Your task to perform on an android device: toggle javascript in the chrome app Image 0: 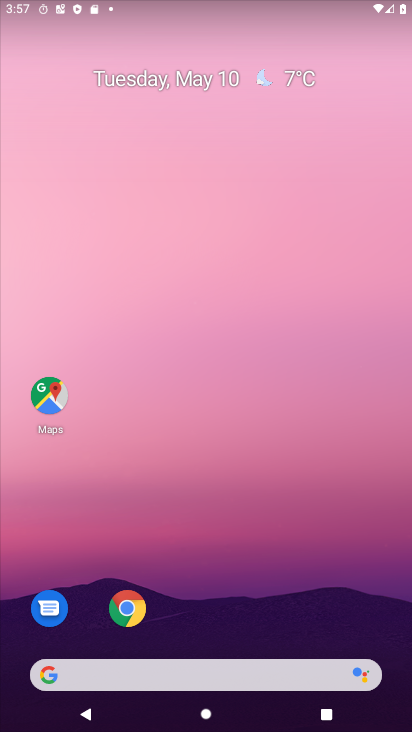
Step 0: click (133, 612)
Your task to perform on an android device: toggle javascript in the chrome app Image 1: 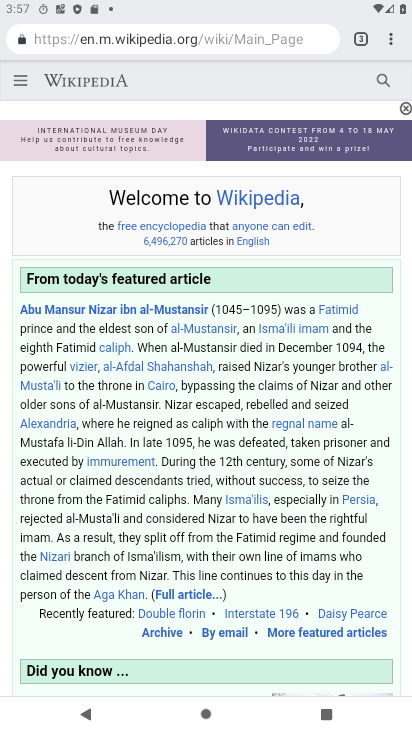
Step 1: drag from (390, 33) to (251, 466)
Your task to perform on an android device: toggle javascript in the chrome app Image 2: 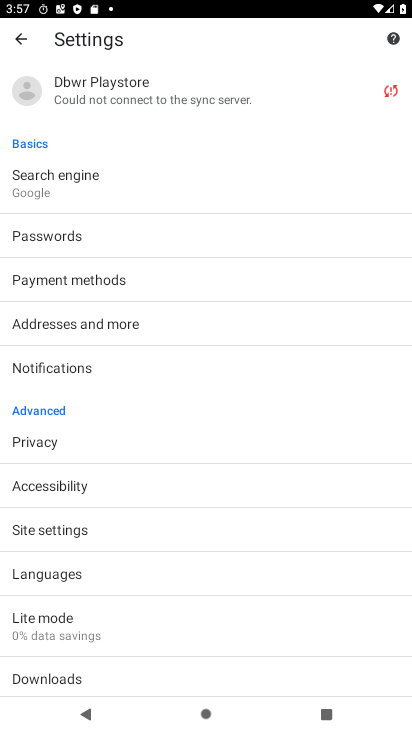
Step 2: click (55, 533)
Your task to perform on an android device: toggle javascript in the chrome app Image 3: 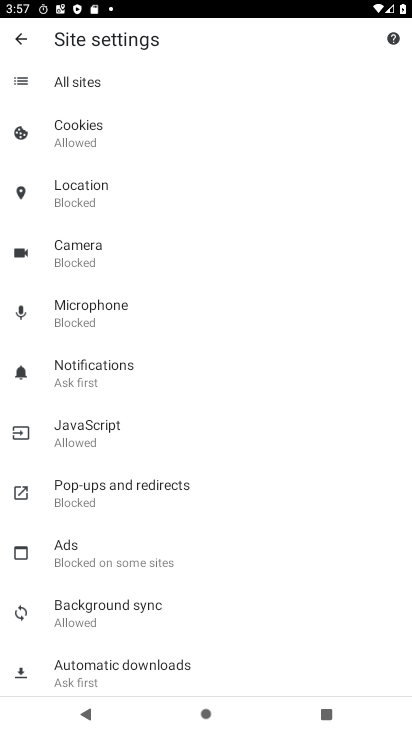
Step 3: click (87, 441)
Your task to perform on an android device: toggle javascript in the chrome app Image 4: 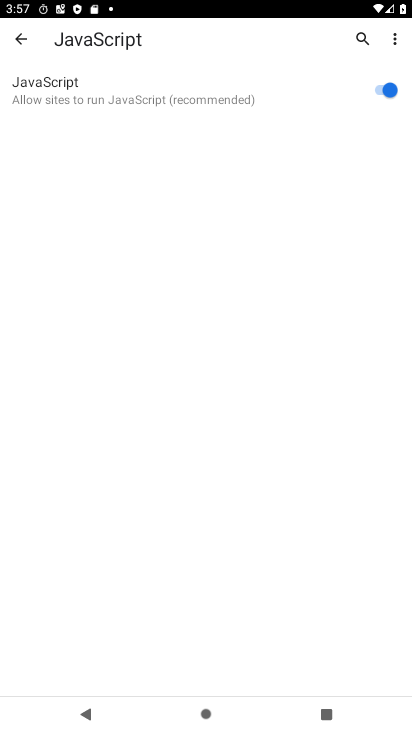
Step 4: click (396, 97)
Your task to perform on an android device: toggle javascript in the chrome app Image 5: 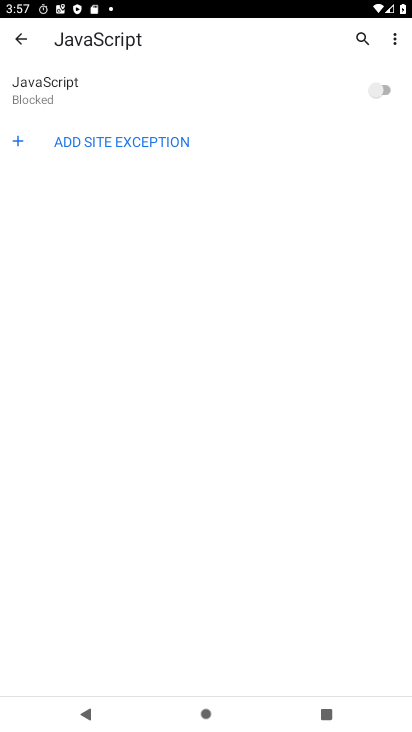
Step 5: task complete